Your task to perform on an android device: Toggle the flashlight Image 0: 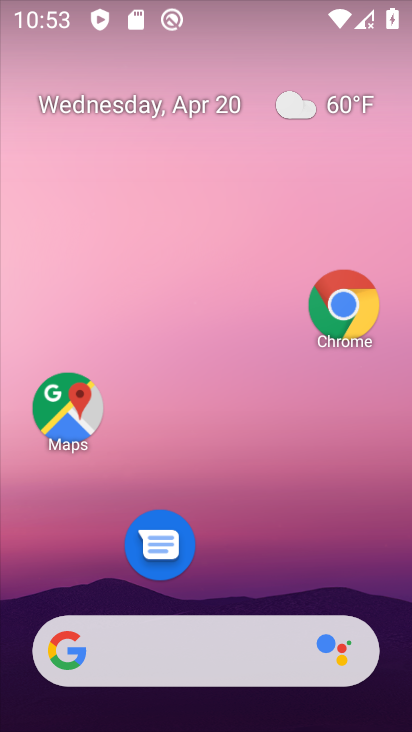
Step 0: drag from (249, 48) to (219, 411)
Your task to perform on an android device: Toggle the flashlight Image 1: 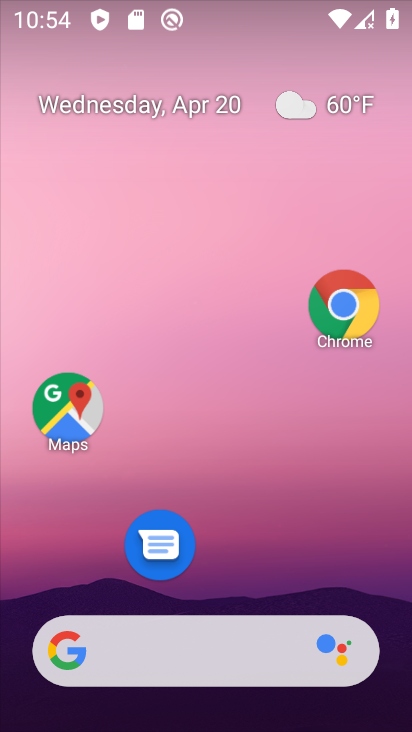
Step 1: task complete